Your task to perform on an android device: Go to Wikipedia Image 0: 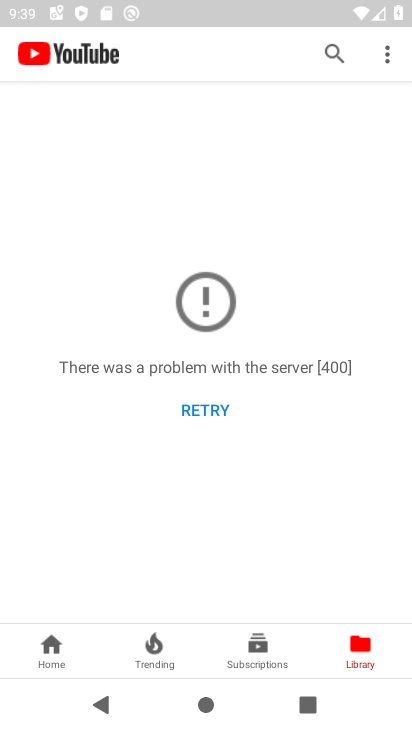
Step 0: press home button
Your task to perform on an android device: Go to Wikipedia Image 1: 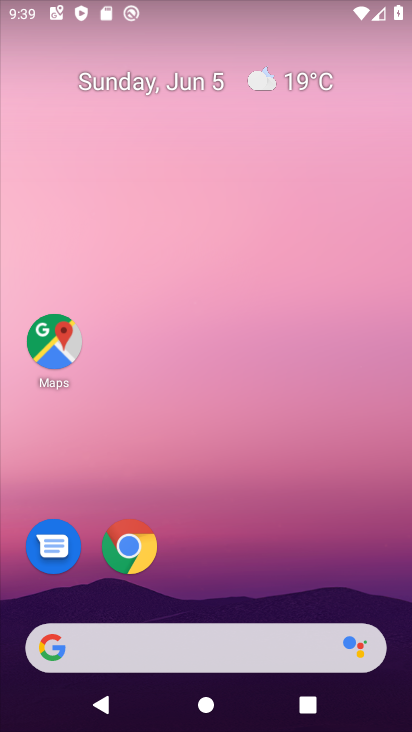
Step 1: click (129, 552)
Your task to perform on an android device: Go to Wikipedia Image 2: 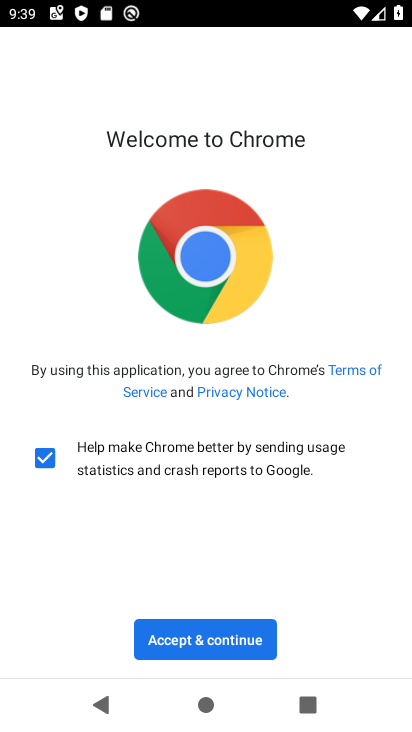
Step 2: click (220, 666)
Your task to perform on an android device: Go to Wikipedia Image 3: 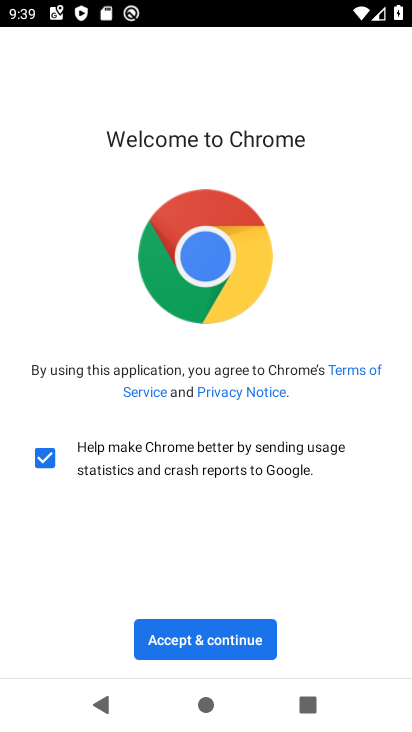
Step 3: click (227, 652)
Your task to perform on an android device: Go to Wikipedia Image 4: 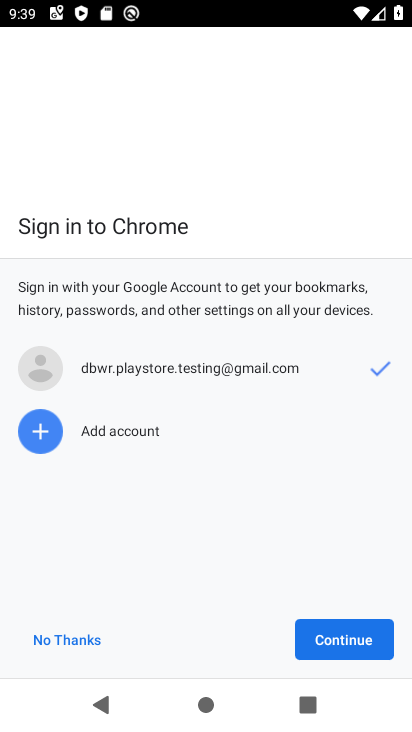
Step 4: click (336, 651)
Your task to perform on an android device: Go to Wikipedia Image 5: 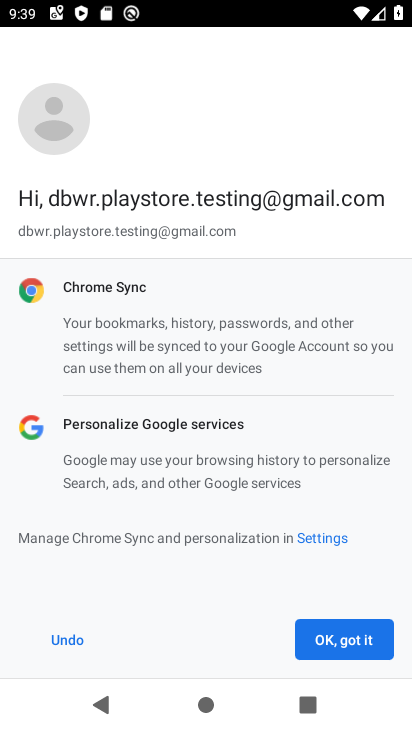
Step 5: click (336, 651)
Your task to perform on an android device: Go to Wikipedia Image 6: 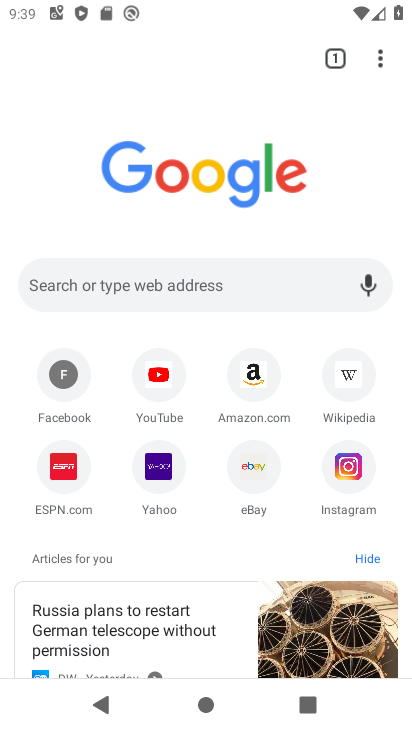
Step 6: click (357, 388)
Your task to perform on an android device: Go to Wikipedia Image 7: 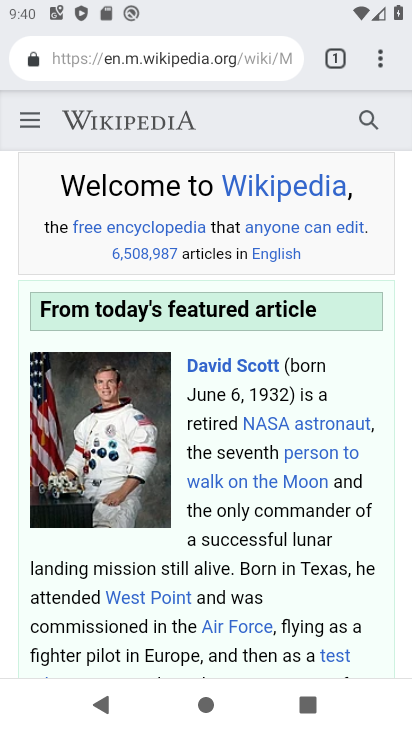
Step 7: task complete